Your task to perform on an android device: Set the phone to "Do not disturb". Image 0: 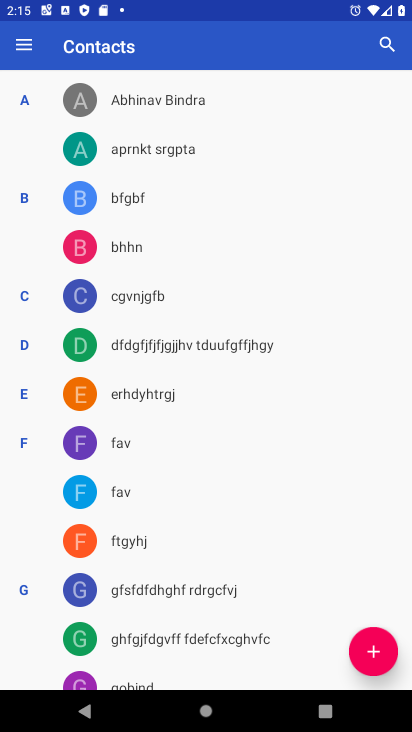
Step 0: press home button
Your task to perform on an android device: Set the phone to "Do not disturb". Image 1: 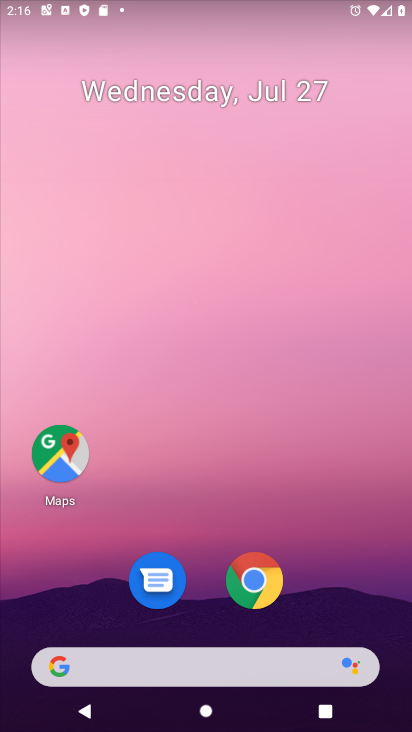
Step 1: drag from (229, 675) to (244, 140)
Your task to perform on an android device: Set the phone to "Do not disturb". Image 2: 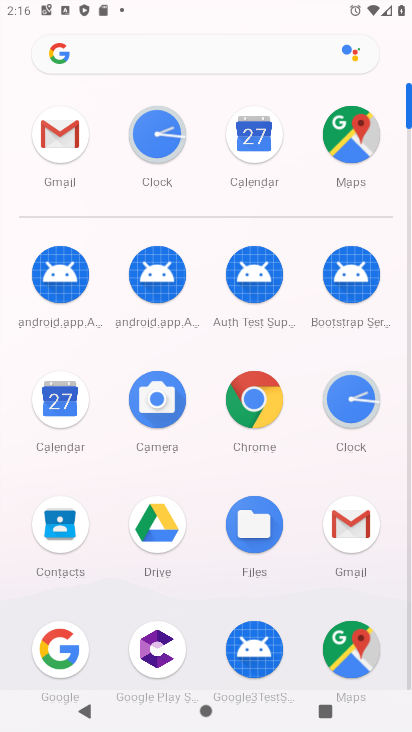
Step 2: drag from (193, 594) to (228, 250)
Your task to perform on an android device: Set the phone to "Do not disturb". Image 3: 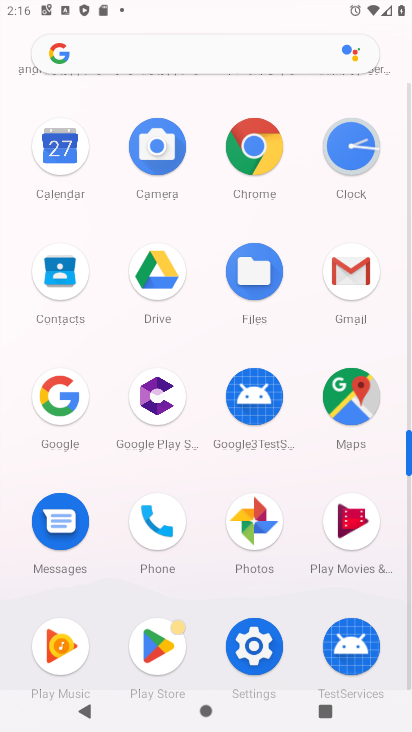
Step 3: click (252, 639)
Your task to perform on an android device: Set the phone to "Do not disturb". Image 4: 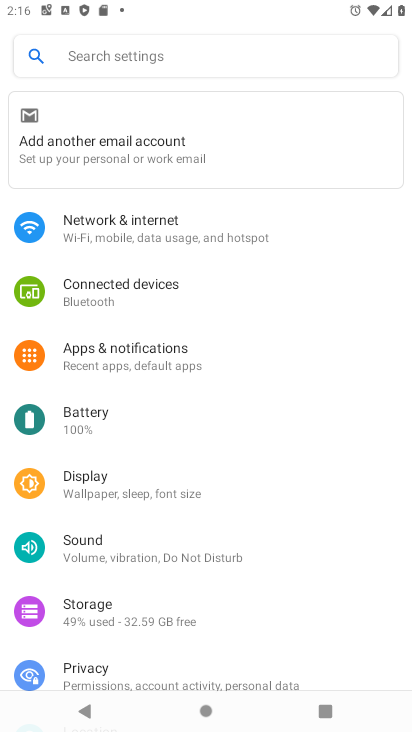
Step 4: click (109, 63)
Your task to perform on an android device: Set the phone to "Do not disturb". Image 5: 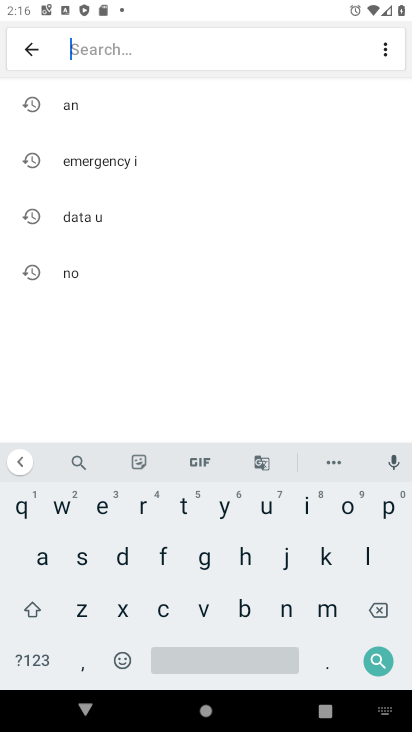
Step 5: click (115, 558)
Your task to perform on an android device: Set the phone to "Do not disturb". Image 6: 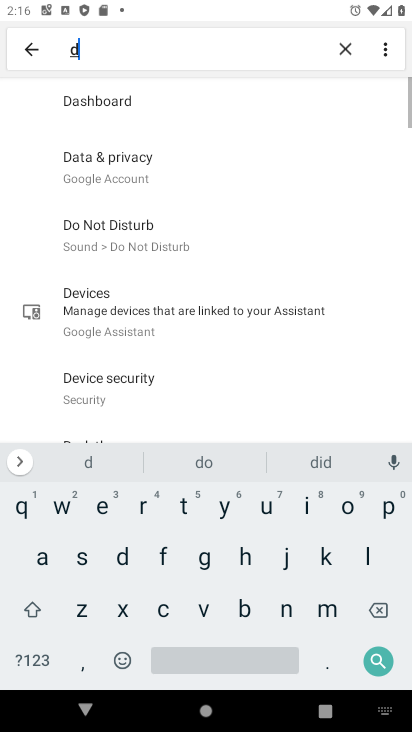
Step 6: click (286, 608)
Your task to perform on an android device: Set the phone to "Do not disturb". Image 7: 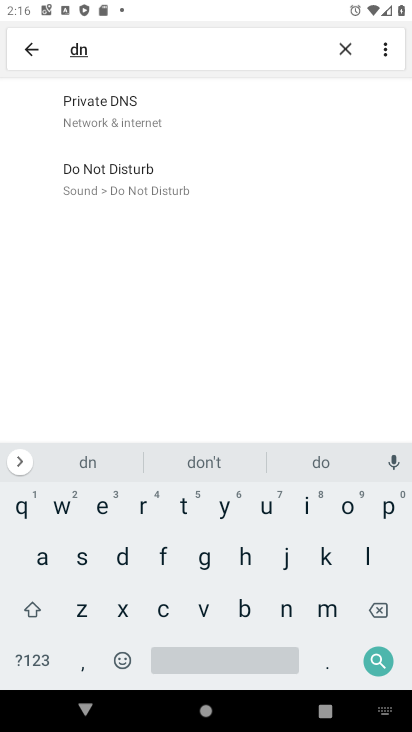
Step 7: click (135, 168)
Your task to perform on an android device: Set the phone to "Do not disturb". Image 8: 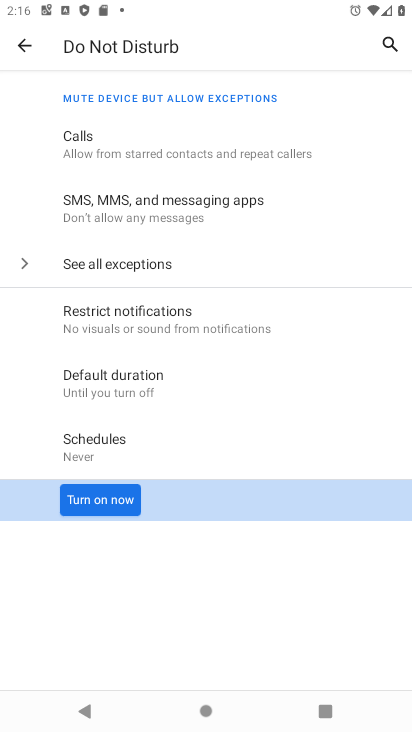
Step 8: click (99, 498)
Your task to perform on an android device: Set the phone to "Do not disturb". Image 9: 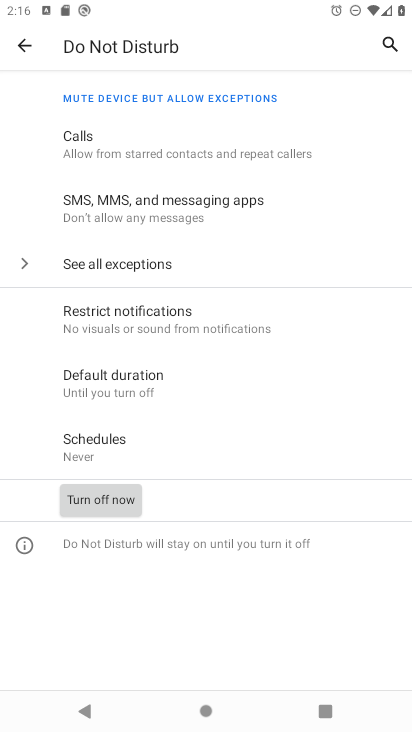
Step 9: task complete